Your task to perform on an android device: Search for a cheap bike on Walmart Image 0: 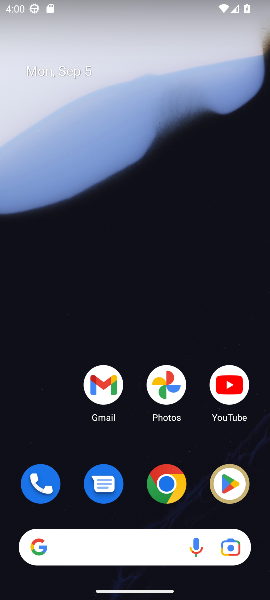
Step 0: click (170, 477)
Your task to perform on an android device: Search for a cheap bike on Walmart Image 1: 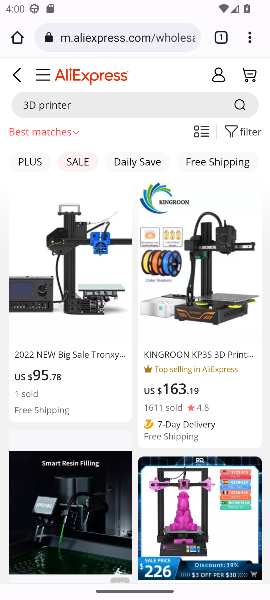
Step 1: click (99, 38)
Your task to perform on an android device: Search for a cheap bike on Walmart Image 2: 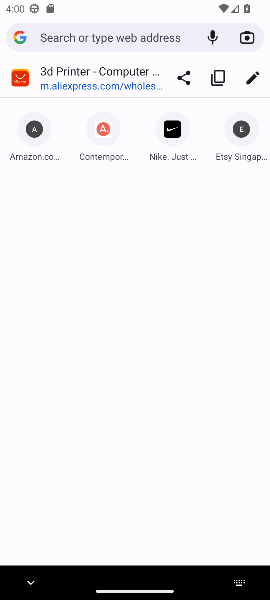
Step 2: type "Walmart"
Your task to perform on an android device: Search for a cheap bike on Walmart Image 3: 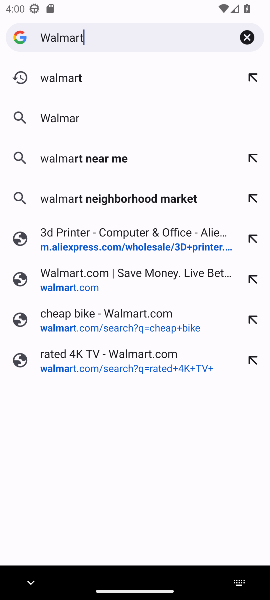
Step 3: press enter
Your task to perform on an android device: Search for a cheap bike on Walmart Image 4: 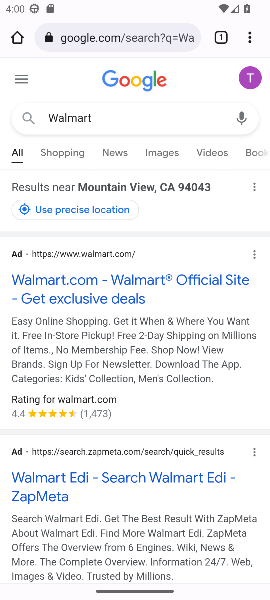
Step 4: drag from (102, 498) to (136, 214)
Your task to perform on an android device: Search for a cheap bike on Walmart Image 5: 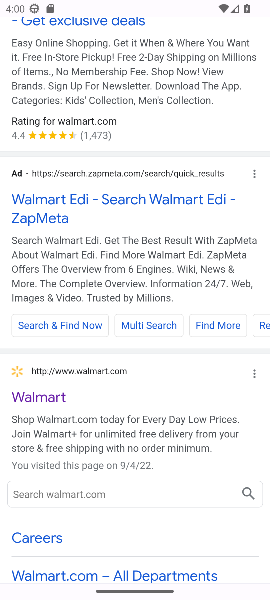
Step 5: click (39, 399)
Your task to perform on an android device: Search for a cheap bike on Walmart Image 6: 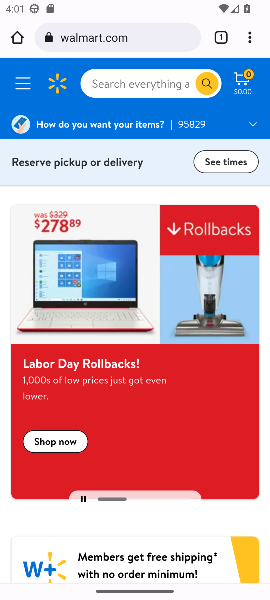
Step 6: click (140, 87)
Your task to perform on an android device: Search for a cheap bike on Walmart Image 7: 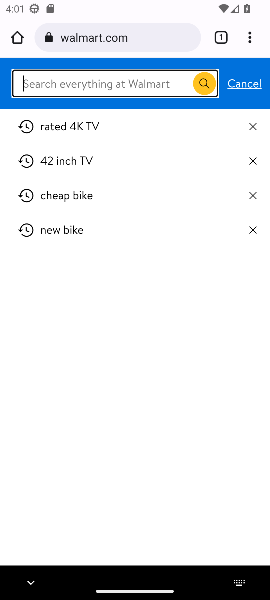
Step 7: type "cheap bike "
Your task to perform on an android device: Search for a cheap bike on Walmart Image 8: 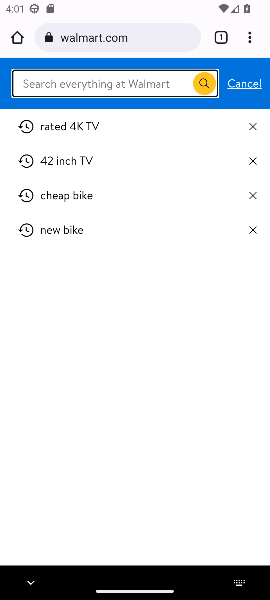
Step 8: press enter
Your task to perform on an android device: Search for a cheap bike on Walmart Image 9: 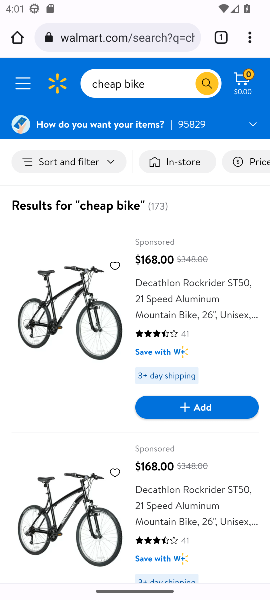
Step 9: task complete